Your task to perform on an android device: Go to Amazon Image 0: 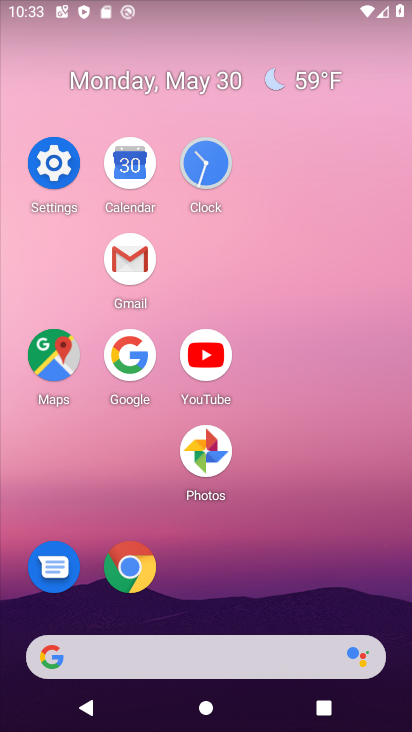
Step 0: click (123, 566)
Your task to perform on an android device: Go to Amazon Image 1: 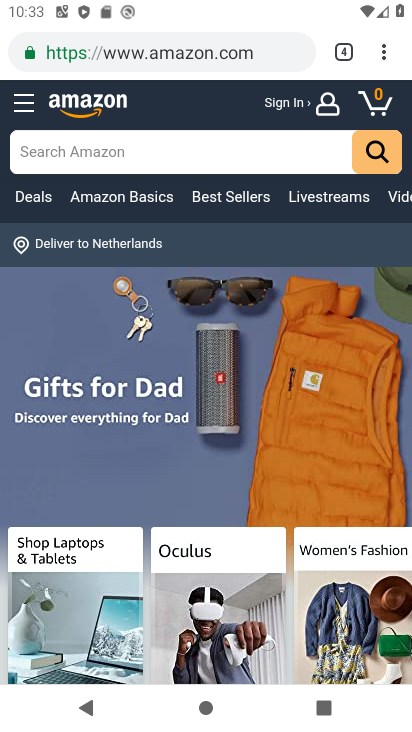
Step 1: task complete